Your task to perform on an android device: See recent photos Image 0: 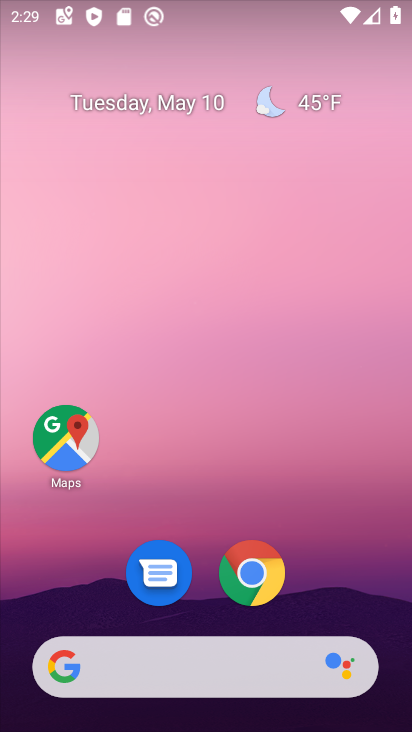
Step 0: drag from (206, 613) to (229, 146)
Your task to perform on an android device: See recent photos Image 1: 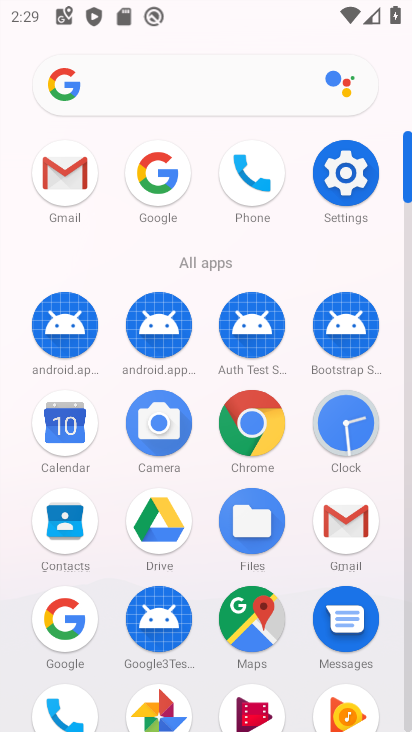
Step 1: click (149, 696)
Your task to perform on an android device: See recent photos Image 2: 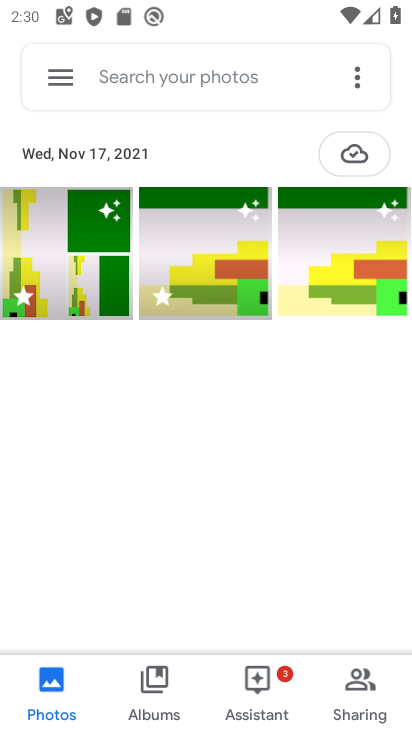
Step 2: task complete